Your task to perform on an android device: Show the shopping cart on costco. Add "logitech g933" to the cart on costco Image 0: 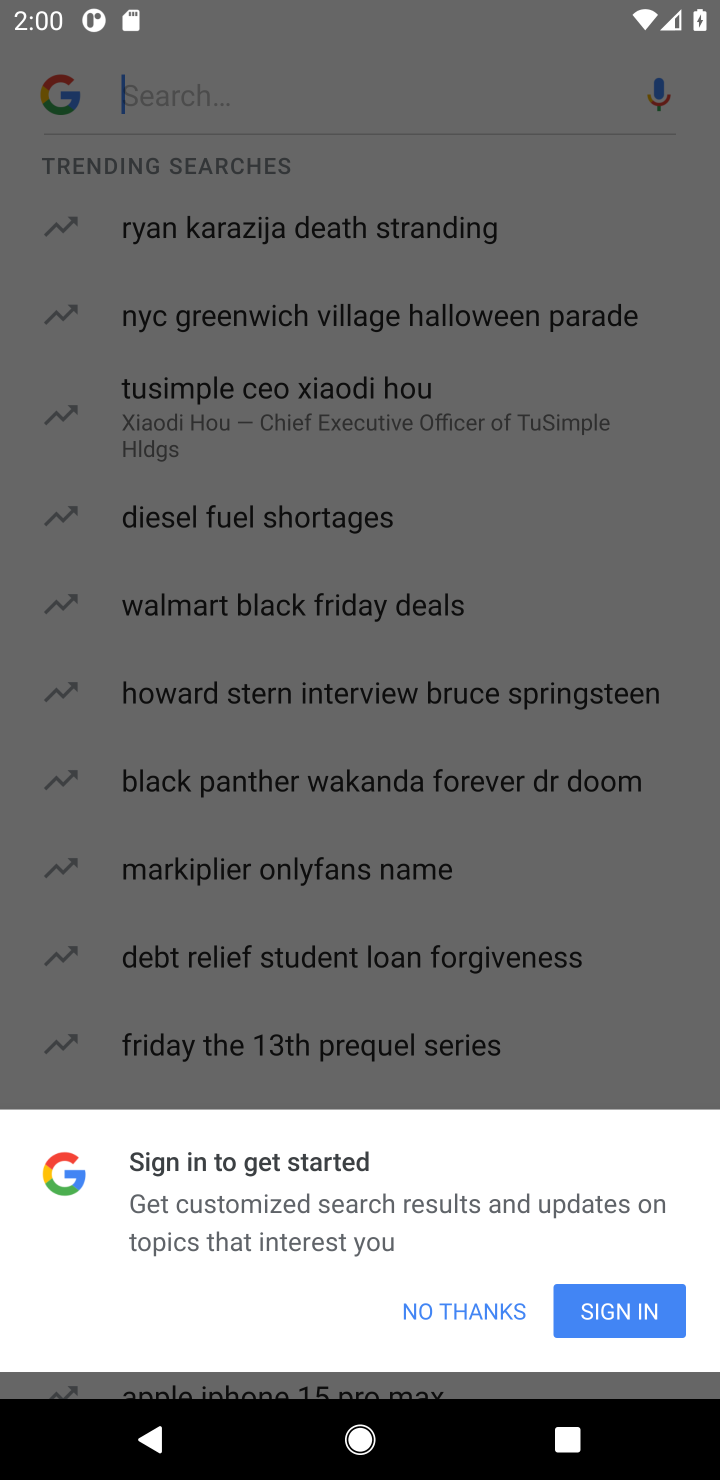
Step 0: press home button
Your task to perform on an android device: Show the shopping cart on costco. Add "logitech g933" to the cart on costco Image 1: 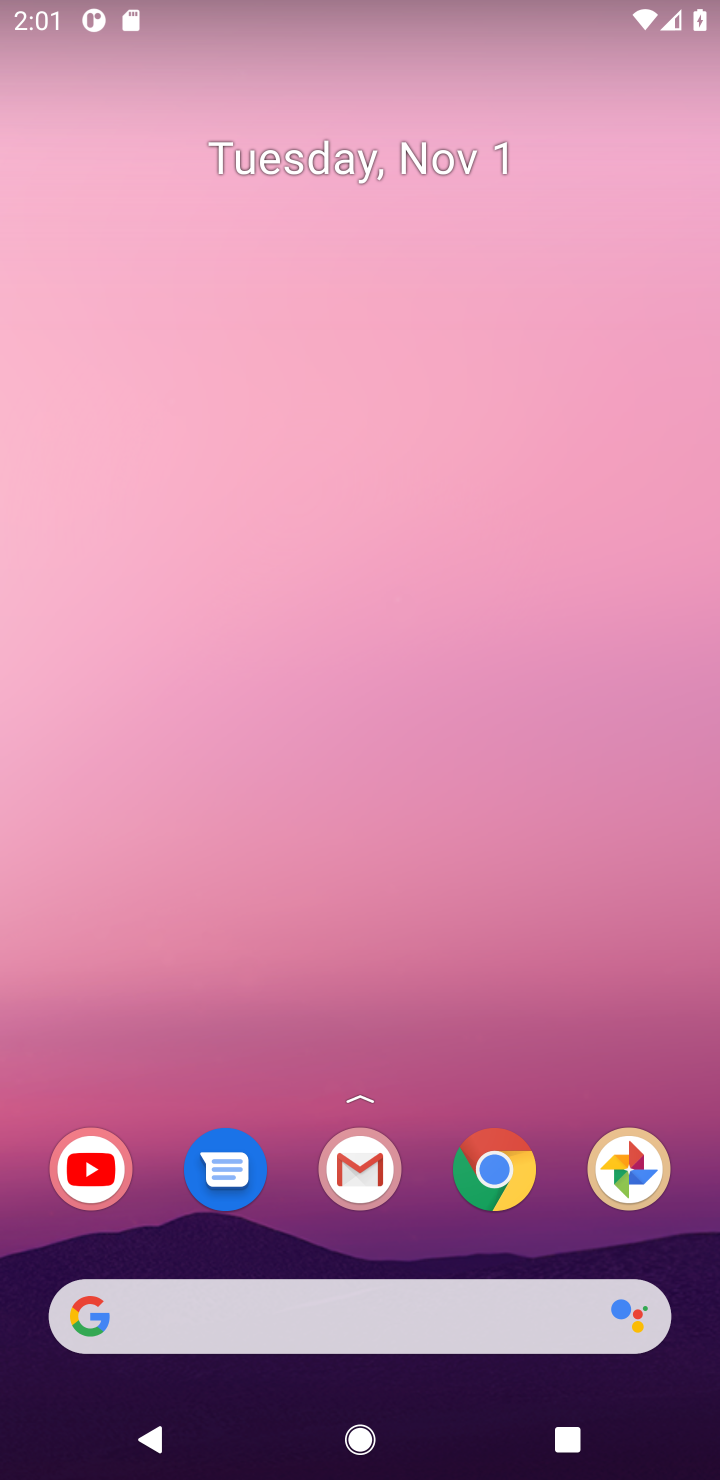
Step 1: drag from (431, 1185) to (493, 202)
Your task to perform on an android device: Show the shopping cart on costco. Add "logitech g933" to the cart on costco Image 2: 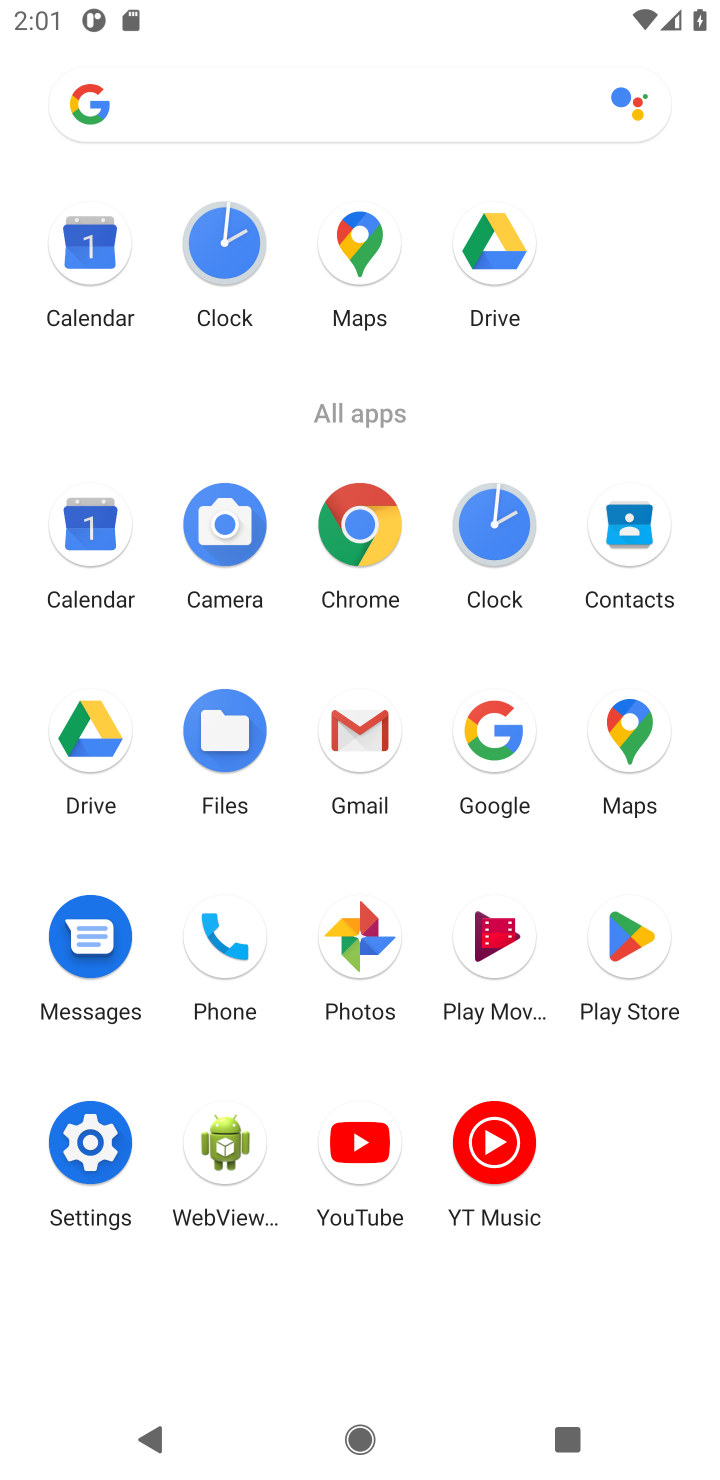
Step 2: click (356, 513)
Your task to perform on an android device: Show the shopping cart on costco. Add "logitech g933" to the cart on costco Image 3: 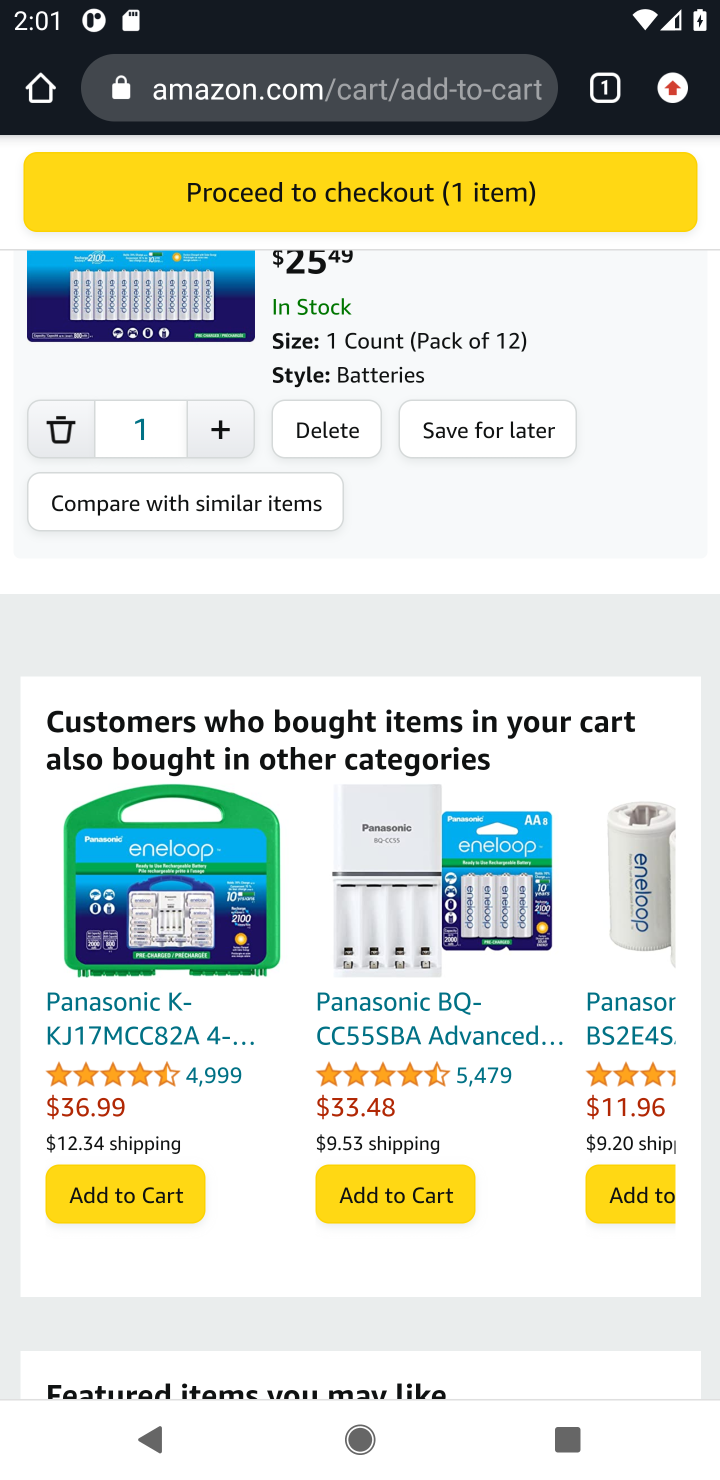
Step 3: click (208, 80)
Your task to perform on an android device: Show the shopping cart on costco. Add "logitech g933" to the cart on costco Image 4: 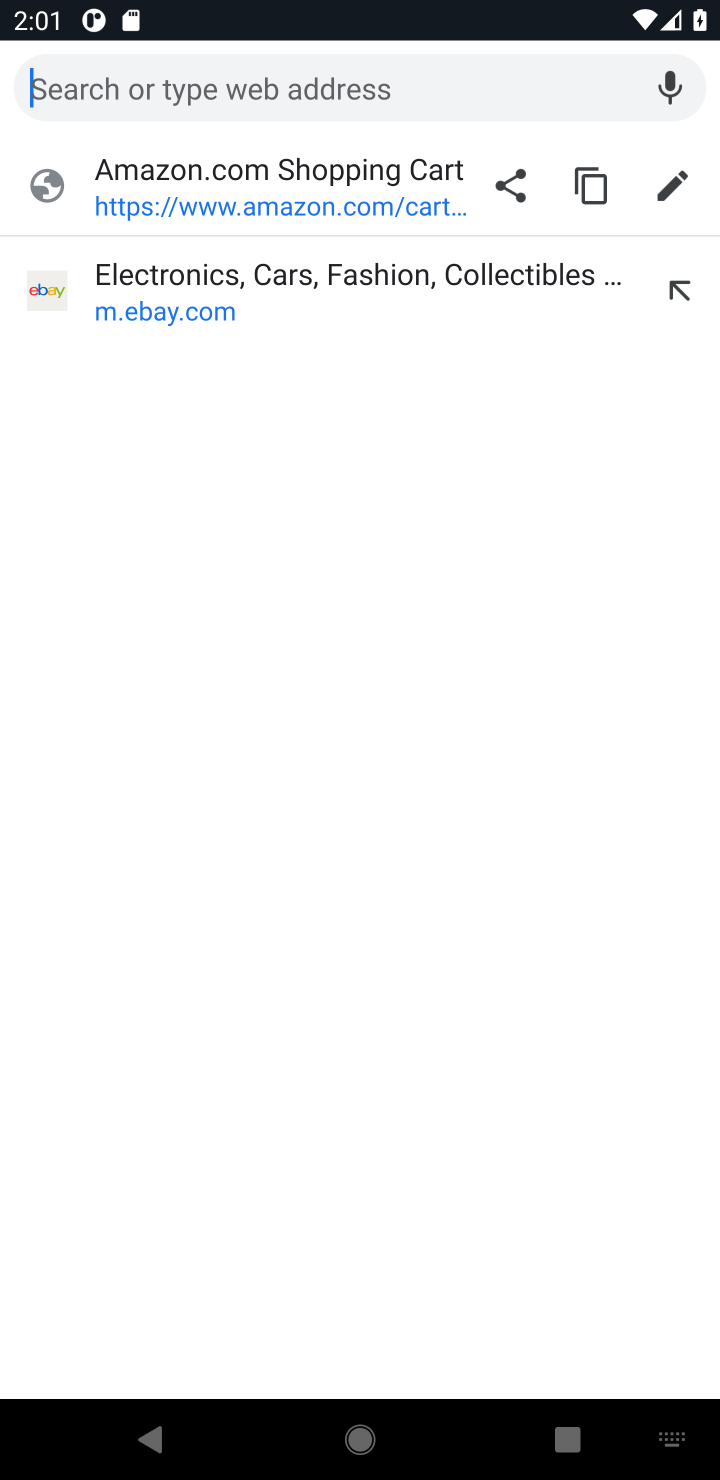
Step 4: type "costco"
Your task to perform on an android device: Show the shopping cart on costco. Add "logitech g933" to the cart on costco Image 5: 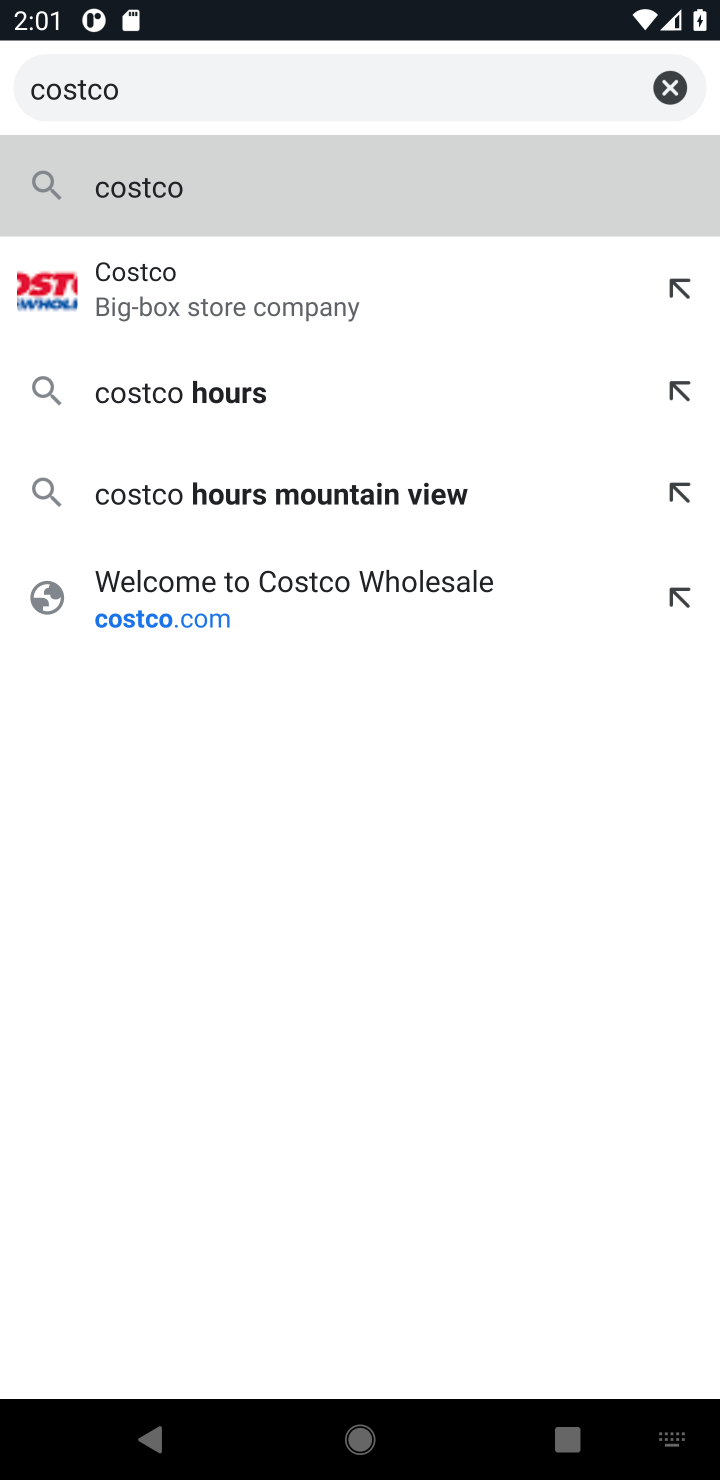
Step 5: click (195, 280)
Your task to perform on an android device: Show the shopping cart on costco. Add "logitech g933" to the cart on costco Image 6: 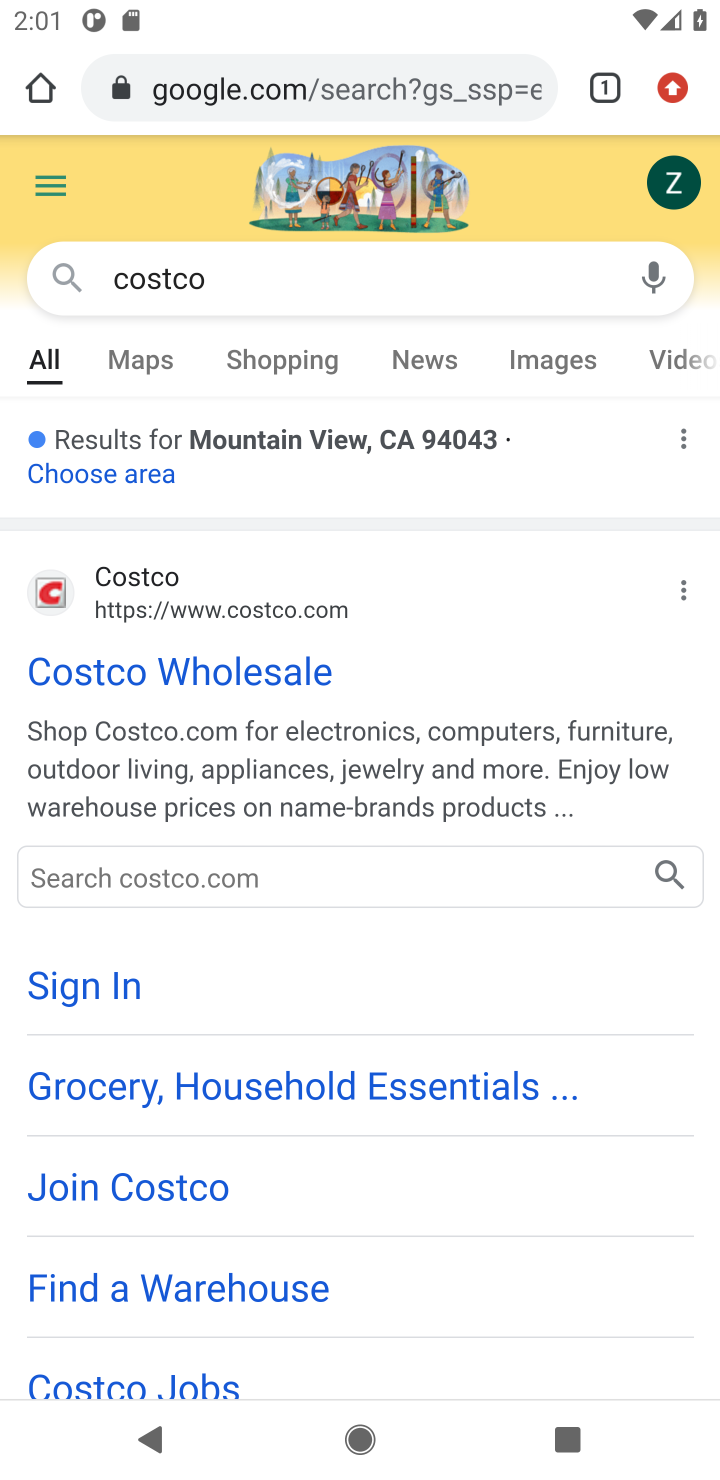
Step 6: click (227, 669)
Your task to perform on an android device: Show the shopping cart on costco. Add "logitech g933" to the cart on costco Image 7: 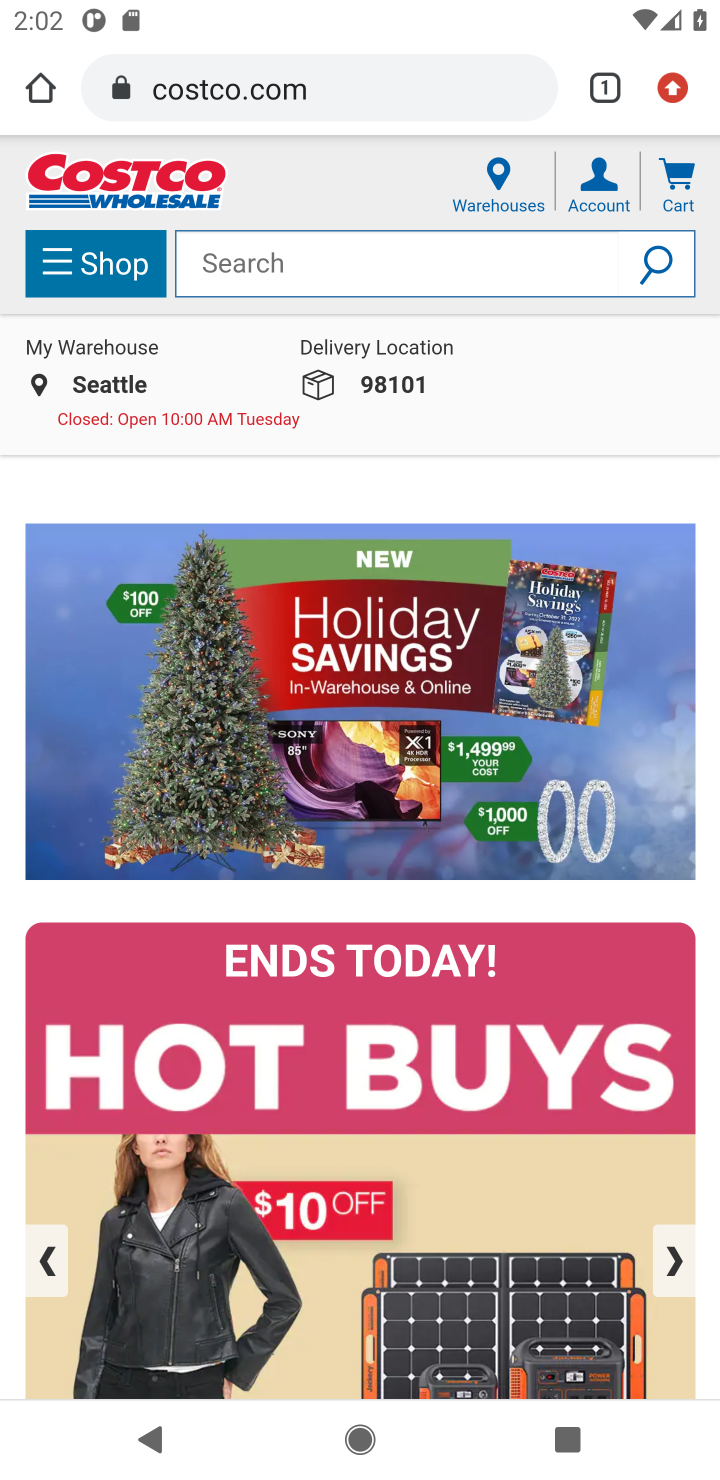
Step 7: click (260, 273)
Your task to perform on an android device: Show the shopping cart on costco. Add "logitech g933" to the cart on costco Image 8: 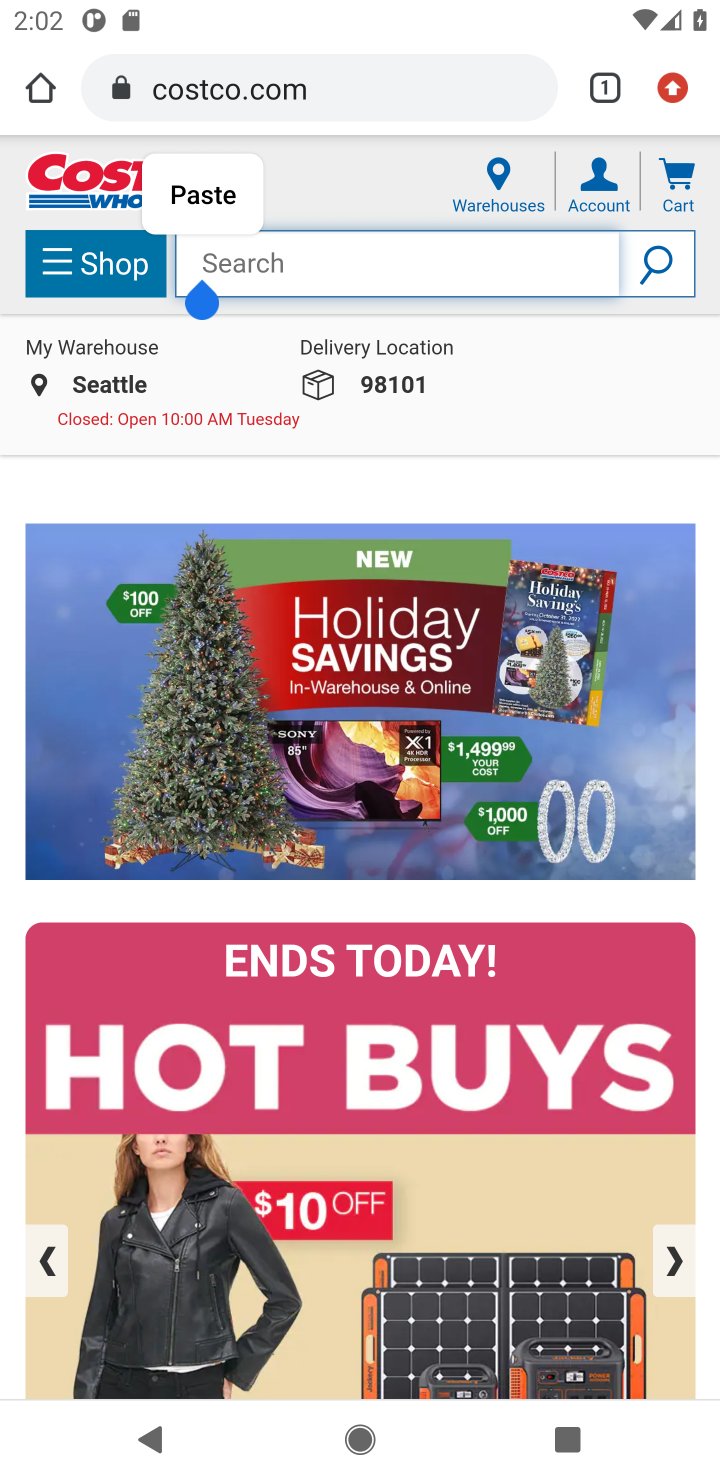
Step 8: type "logitech g933"
Your task to perform on an android device: Show the shopping cart on costco. Add "logitech g933" to the cart on costco Image 9: 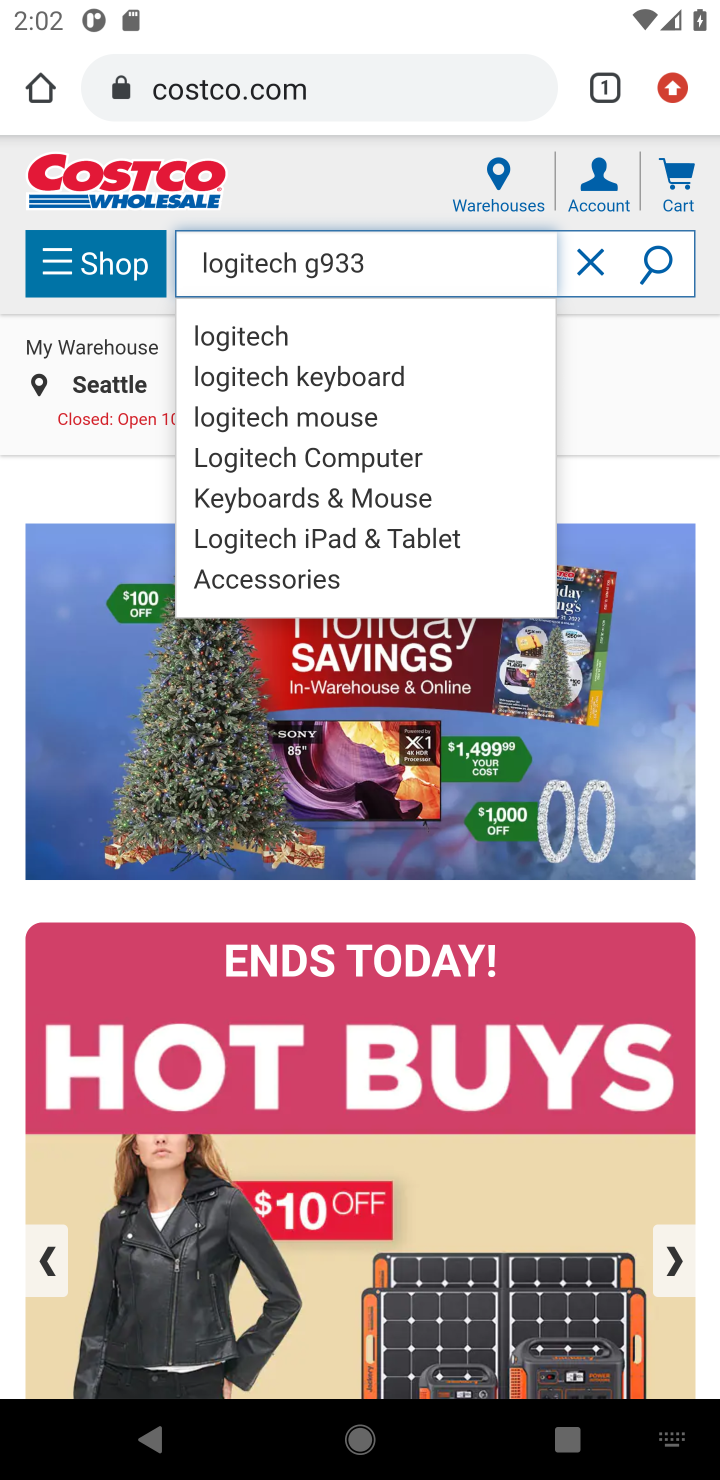
Step 9: click (317, 331)
Your task to perform on an android device: Show the shopping cart on costco. Add "logitech g933" to the cart on costco Image 10: 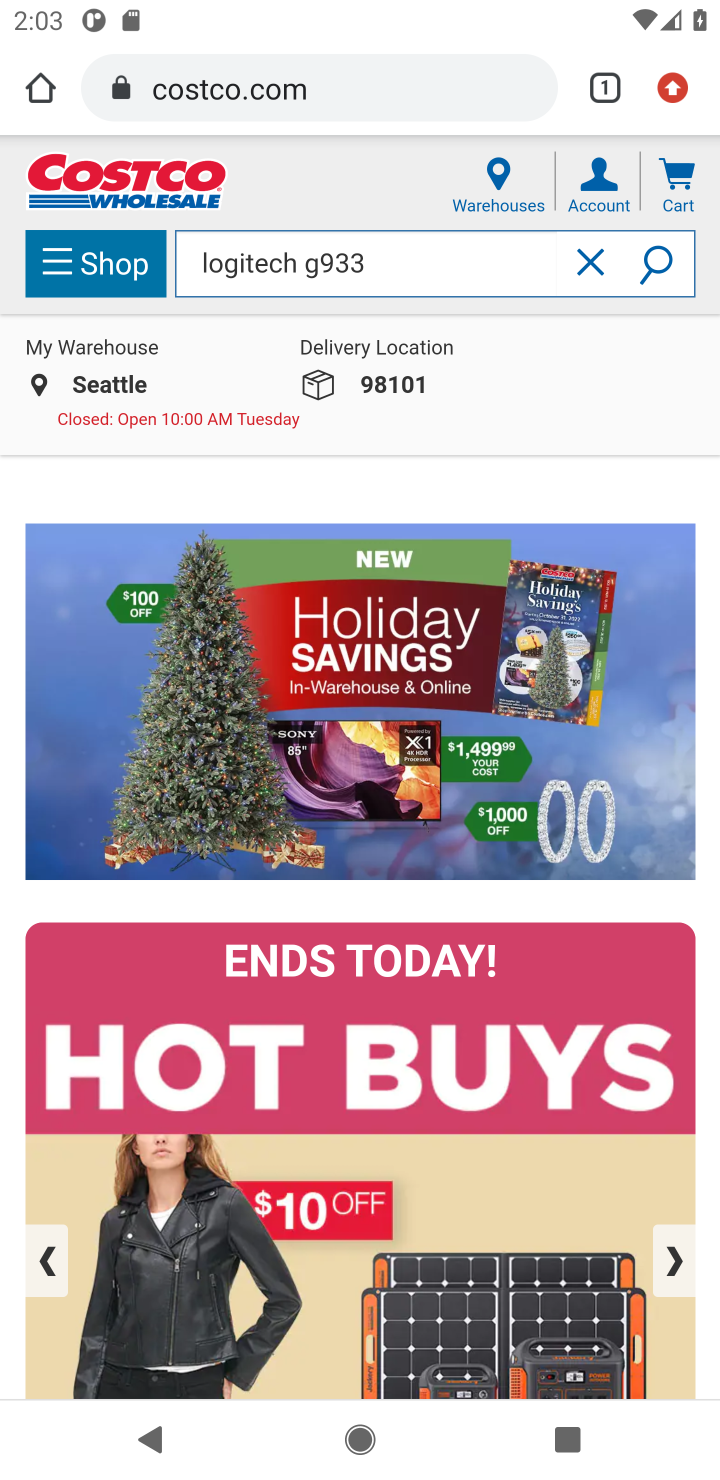
Step 10: drag from (413, 260) to (666, 259)
Your task to perform on an android device: Show the shopping cart on costco. Add "logitech g933" to the cart on costco Image 11: 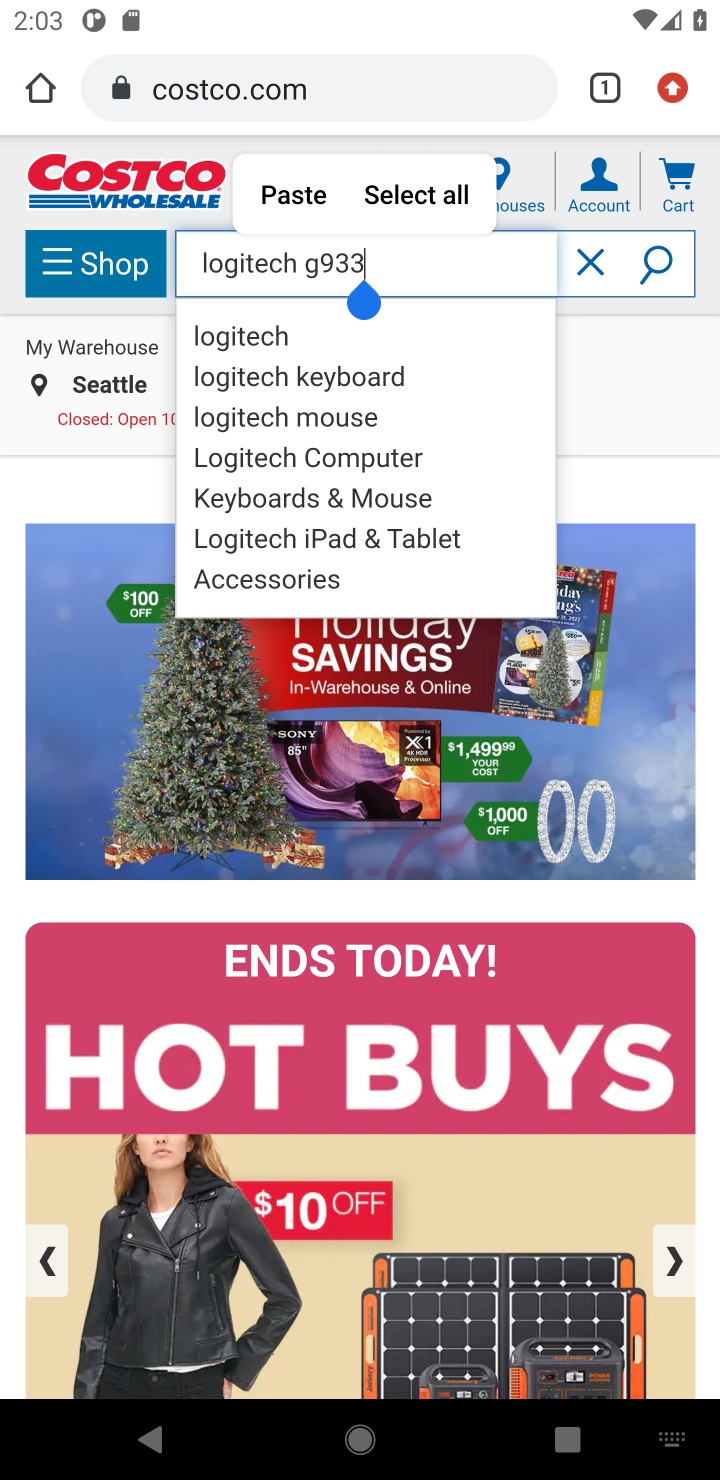
Step 11: click (666, 259)
Your task to perform on an android device: Show the shopping cart on costco. Add "logitech g933" to the cart on costco Image 12: 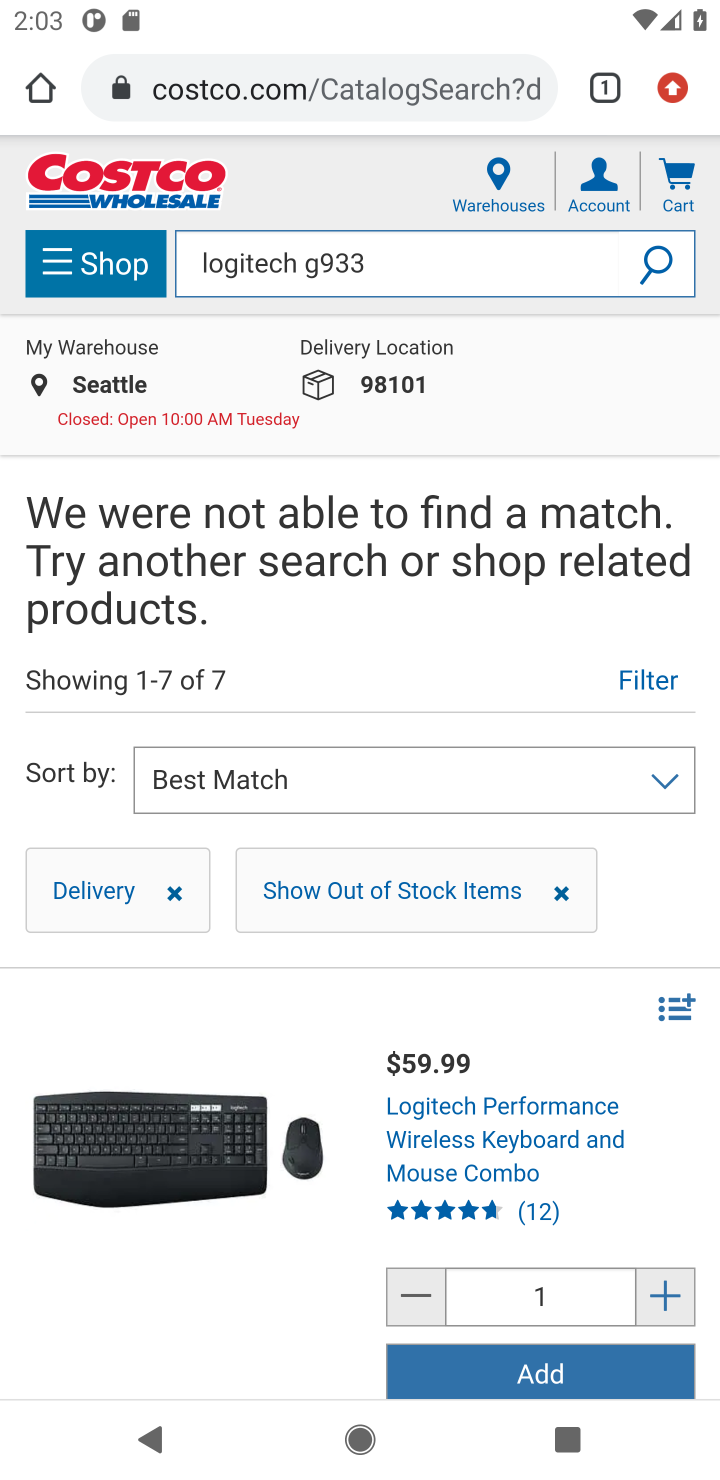
Step 12: click (458, 1134)
Your task to perform on an android device: Show the shopping cart on costco. Add "logitech g933" to the cart on costco Image 13: 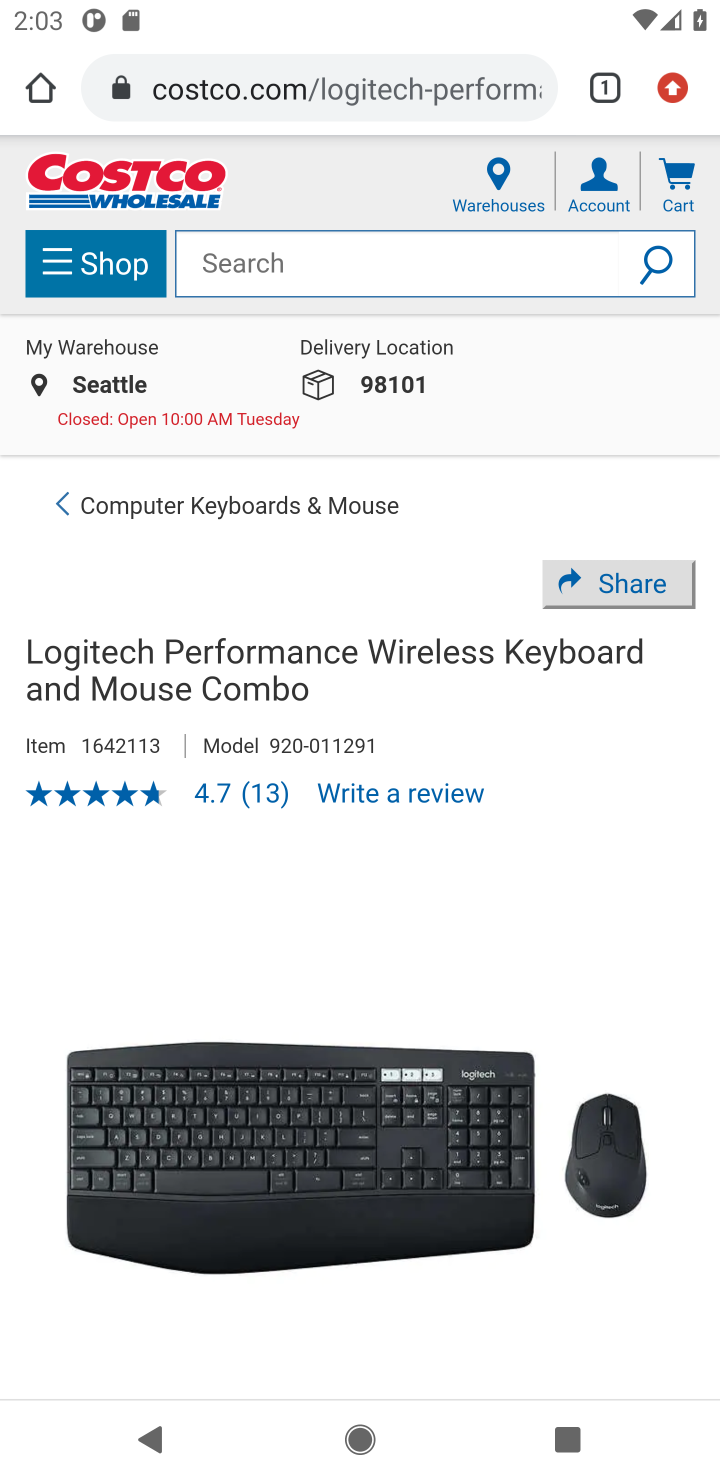
Step 13: drag from (364, 1278) to (550, 639)
Your task to perform on an android device: Show the shopping cart on costco. Add "logitech g933" to the cart on costco Image 14: 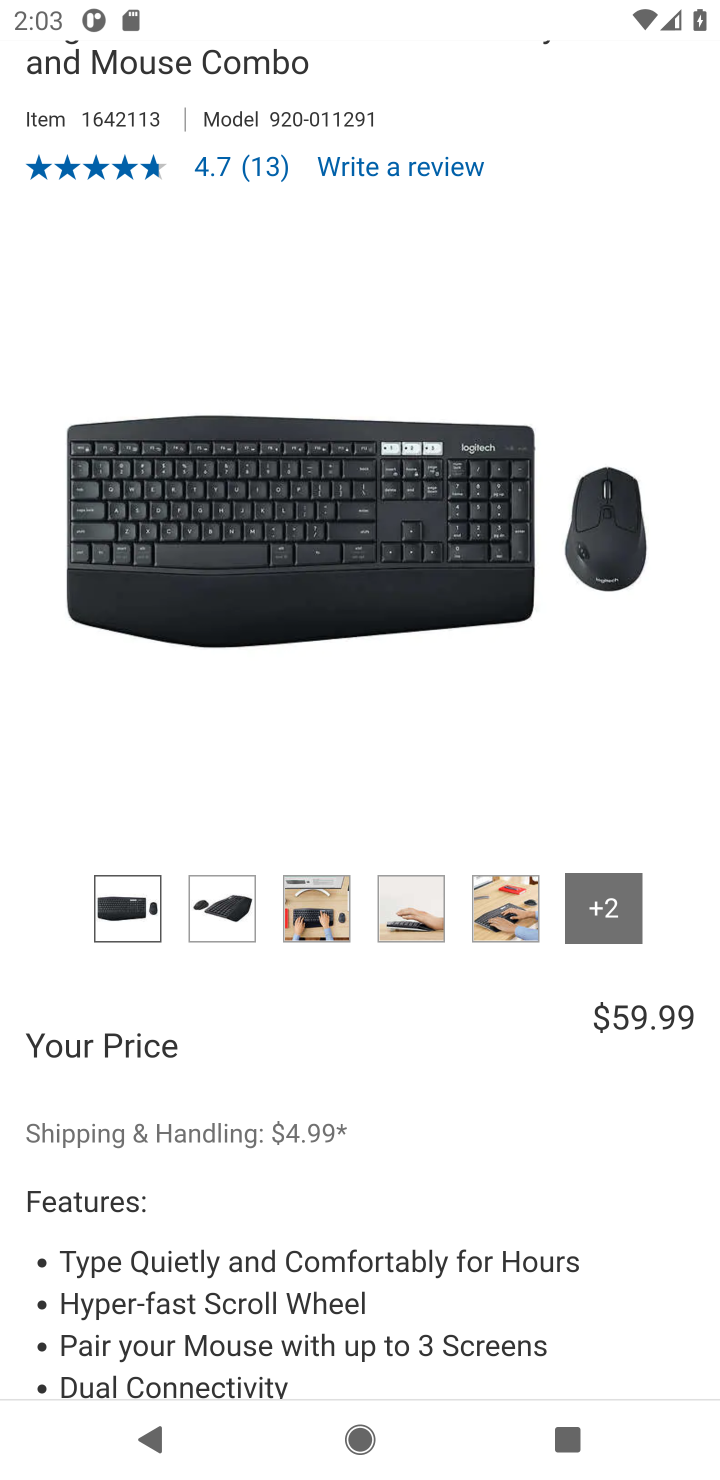
Step 14: drag from (354, 1288) to (499, 595)
Your task to perform on an android device: Show the shopping cart on costco. Add "logitech g933" to the cart on costco Image 15: 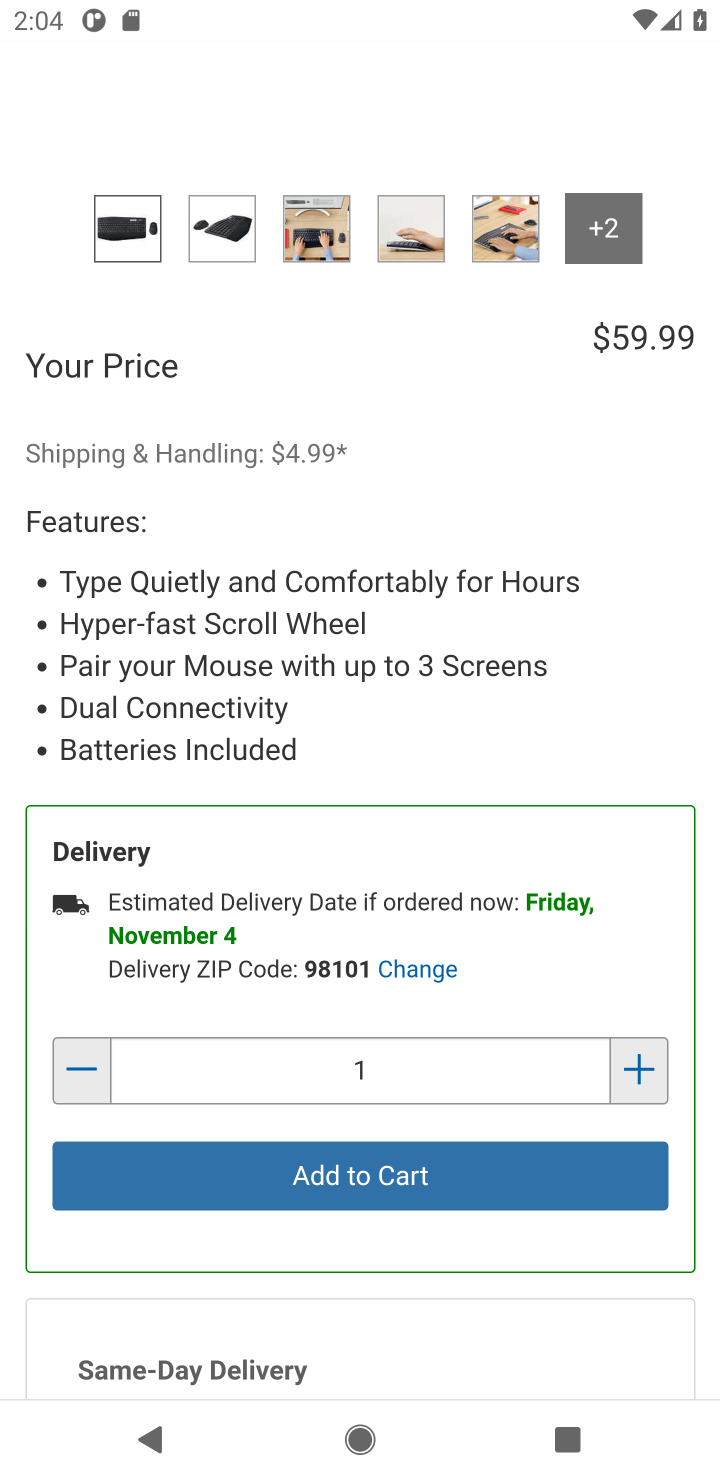
Step 15: click (396, 1189)
Your task to perform on an android device: Show the shopping cart on costco. Add "logitech g933" to the cart on costco Image 16: 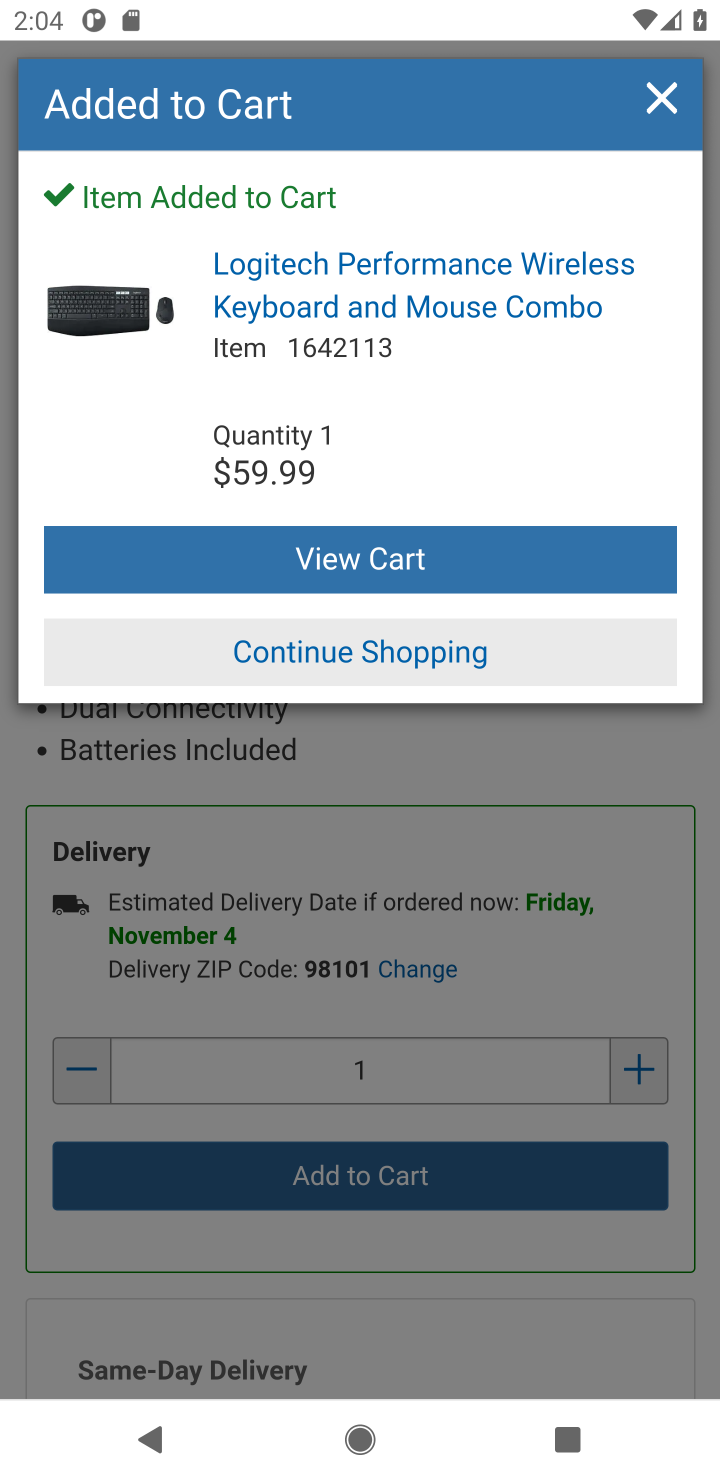
Step 16: click (380, 583)
Your task to perform on an android device: Show the shopping cart on costco. Add "logitech g933" to the cart on costco Image 17: 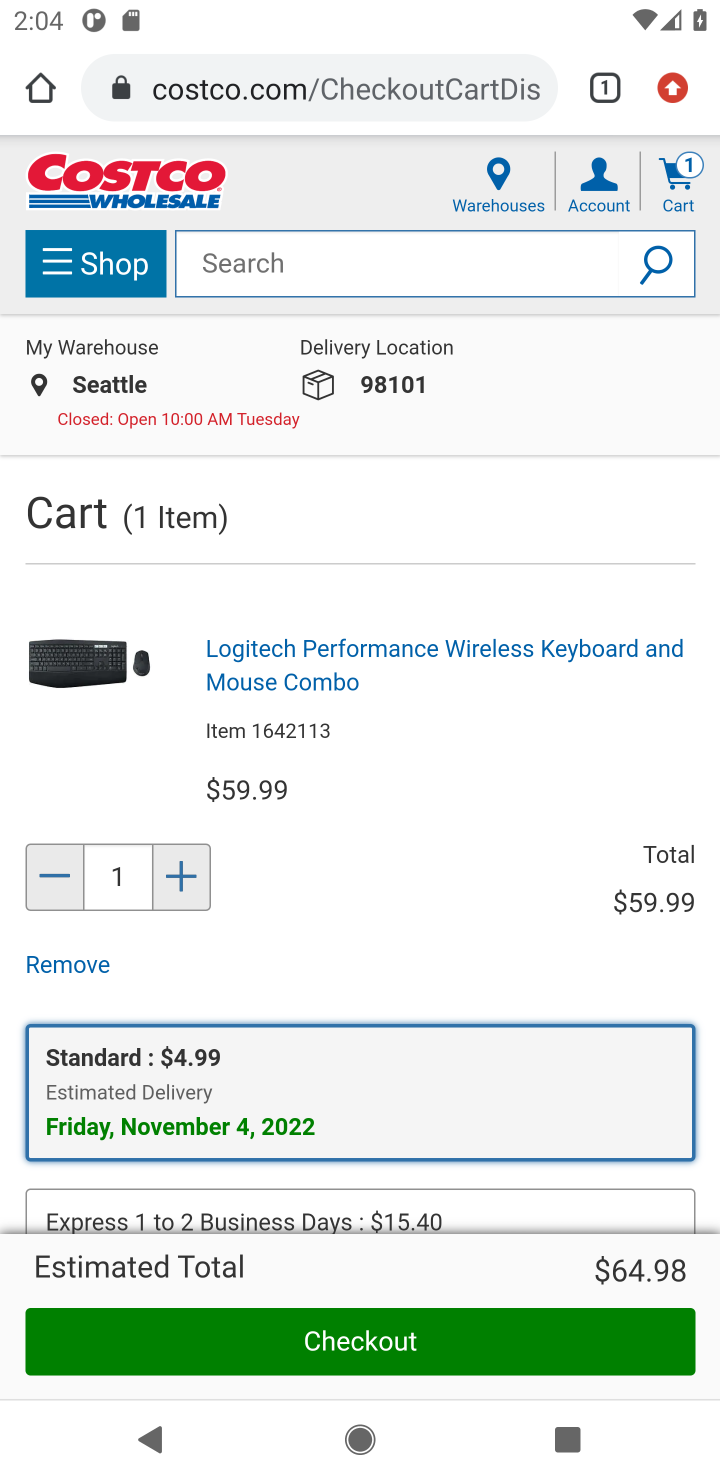
Step 17: click (674, 188)
Your task to perform on an android device: Show the shopping cart on costco. Add "logitech g933" to the cart on costco Image 18: 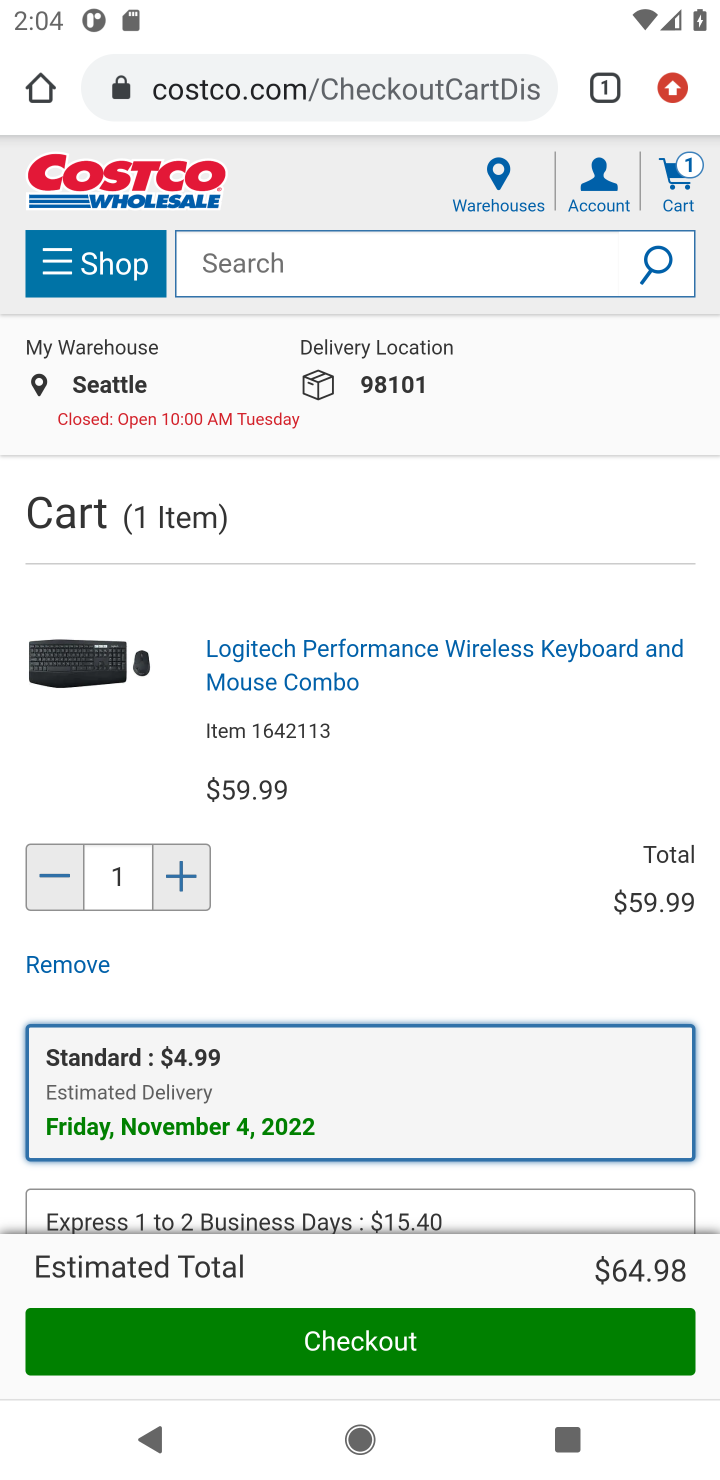
Step 18: task complete